Your task to perform on an android device: Go to CNN.com Image 0: 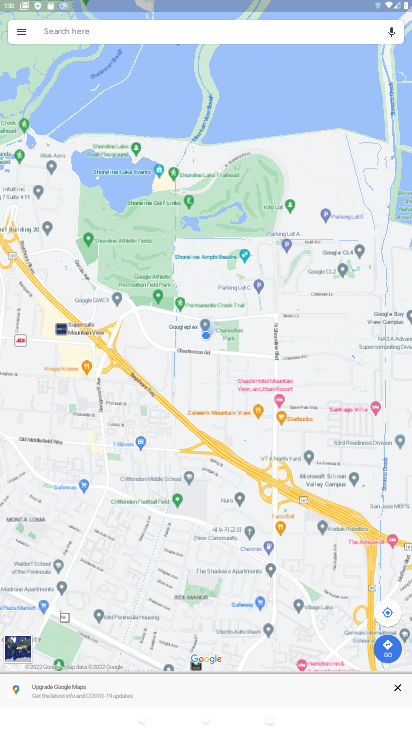
Step 0: press home button
Your task to perform on an android device: Go to CNN.com Image 1: 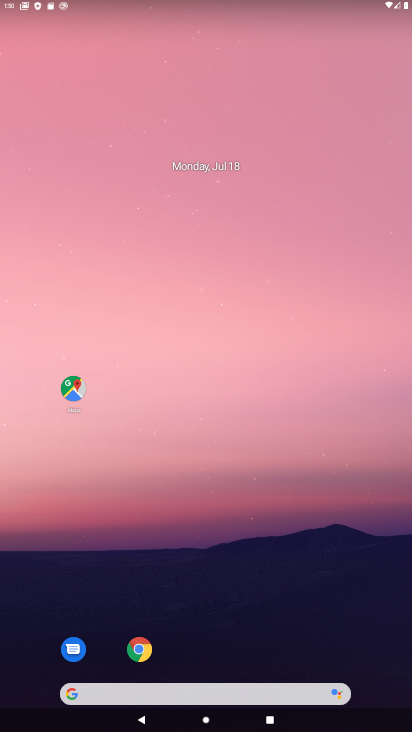
Step 1: drag from (276, 627) to (253, 127)
Your task to perform on an android device: Go to CNN.com Image 2: 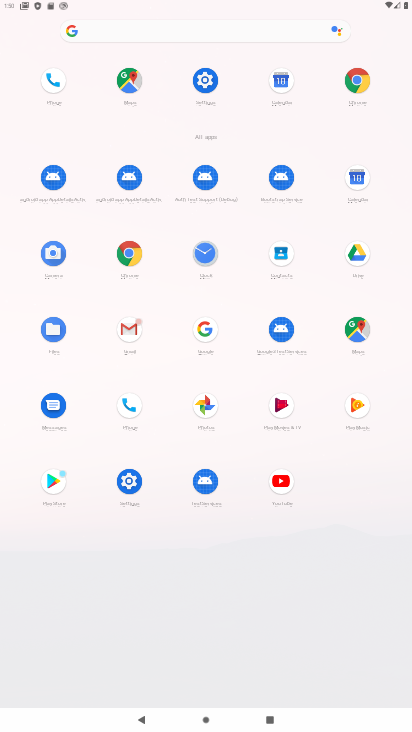
Step 2: click (128, 270)
Your task to perform on an android device: Go to CNN.com Image 3: 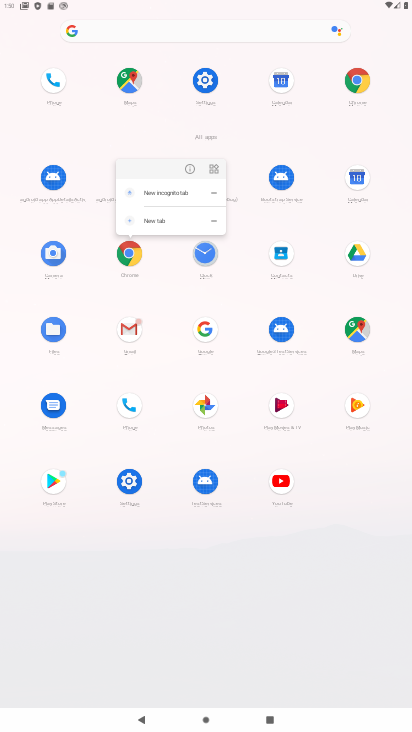
Step 3: click (126, 262)
Your task to perform on an android device: Go to CNN.com Image 4: 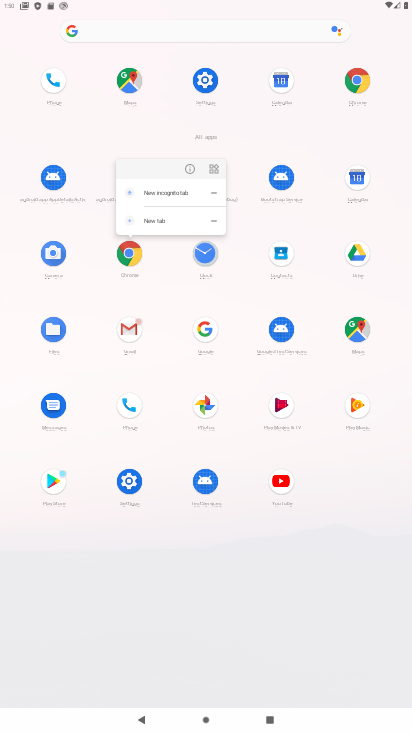
Step 4: click (126, 262)
Your task to perform on an android device: Go to CNN.com Image 5: 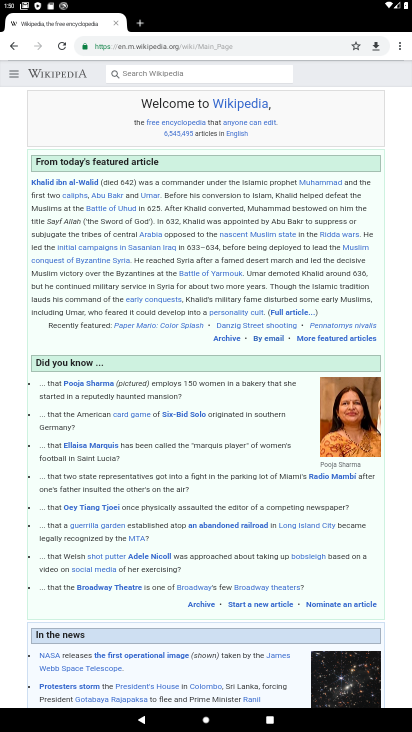
Step 5: press back button
Your task to perform on an android device: Go to CNN.com Image 6: 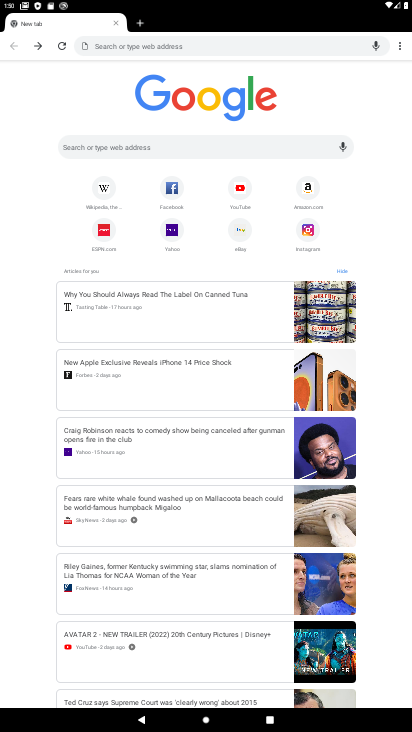
Step 6: click (107, 161)
Your task to perform on an android device: Go to CNN.com Image 7: 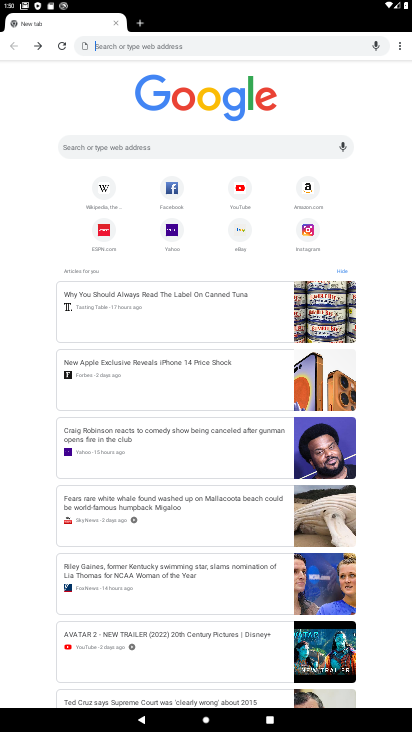
Step 7: click (135, 148)
Your task to perform on an android device: Go to CNN.com Image 8: 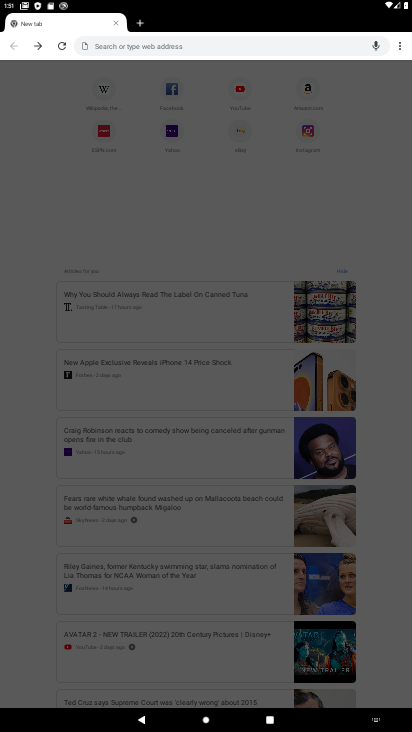
Step 8: type "CNN.com"
Your task to perform on an android device: Go to CNN.com Image 9: 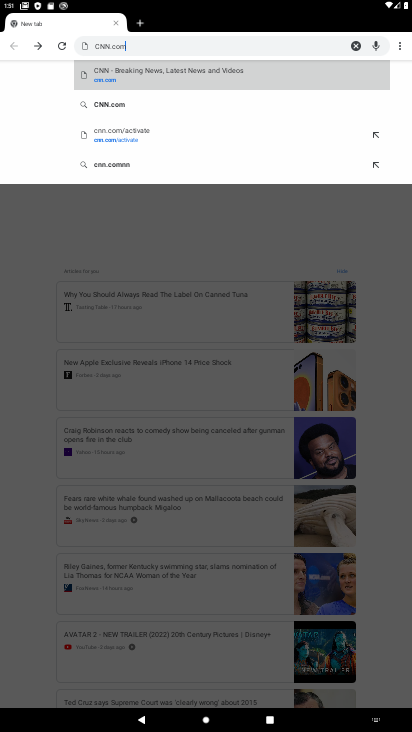
Step 9: press enter
Your task to perform on an android device: Go to CNN.com Image 10: 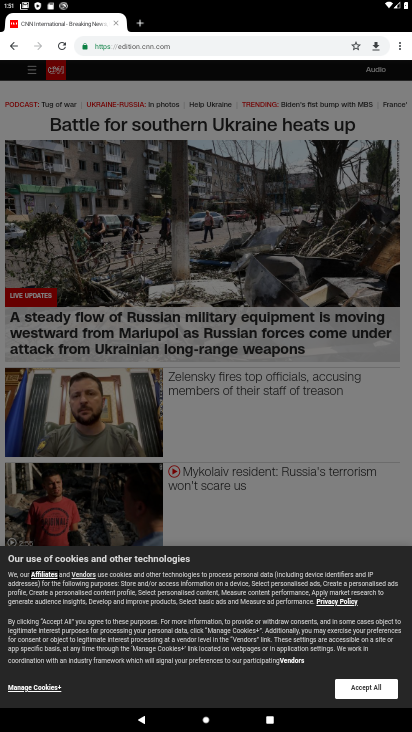
Step 10: task complete